Your task to perform on an android device: Go to privacy settings Image 0: 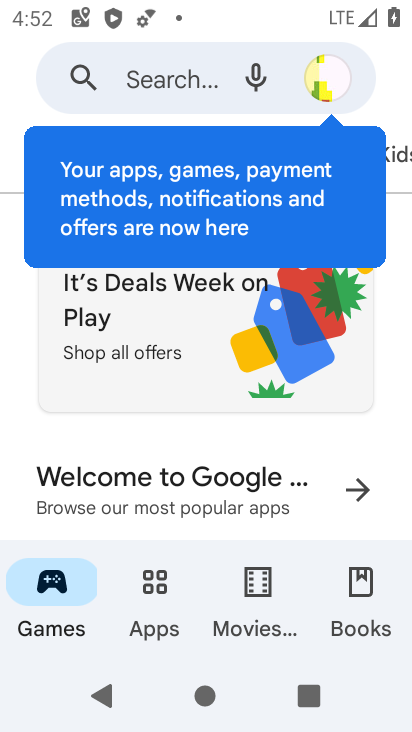
Step 0: press home button
Your task to perform on an android device: Go to privacy settings Image 1: 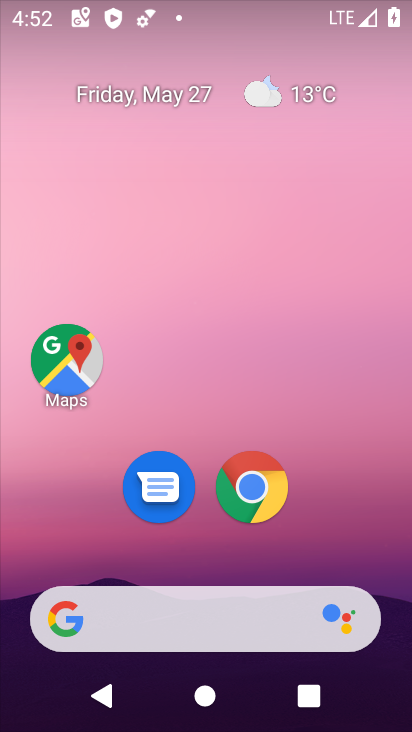
Step 1: drag from (332, 484) to (313, 170)
Your task to perform on an android device: Go to privacy settings Image 2: 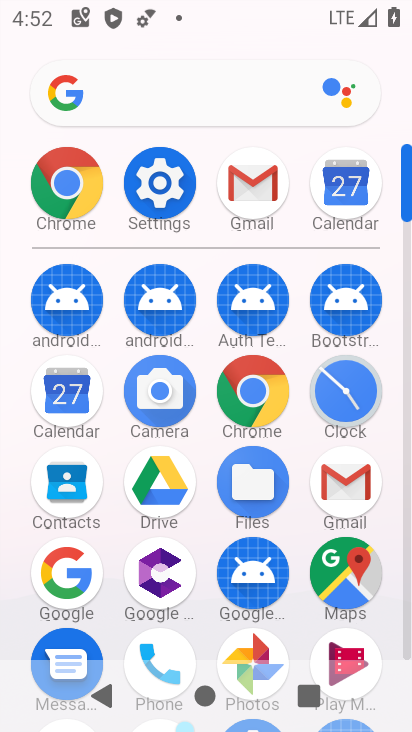
Step 2: click (149, 175)
Your task to perform on an android device: Go to privacy settings Image 3: 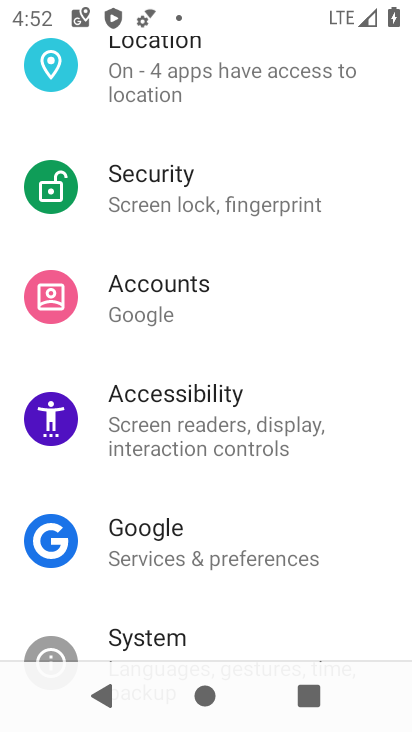
Step 3: drag from (278, 561) to (303, 152)
Your task to perform on an android device: Go to privacy settings Image 4: 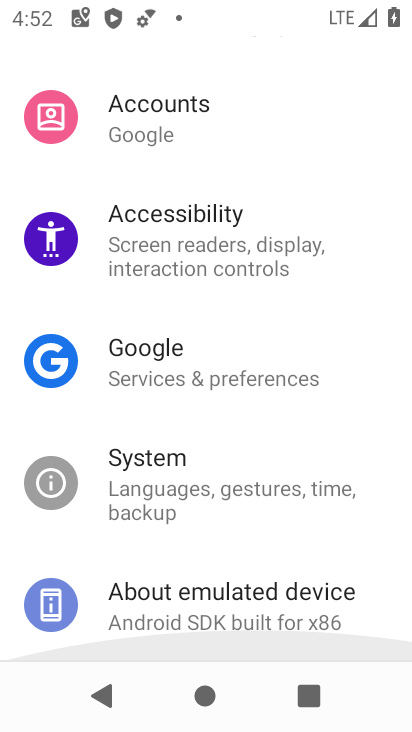
Step 4: click (314, 130)
Your task to perform on an android device: Go to privacy settings Image 5: 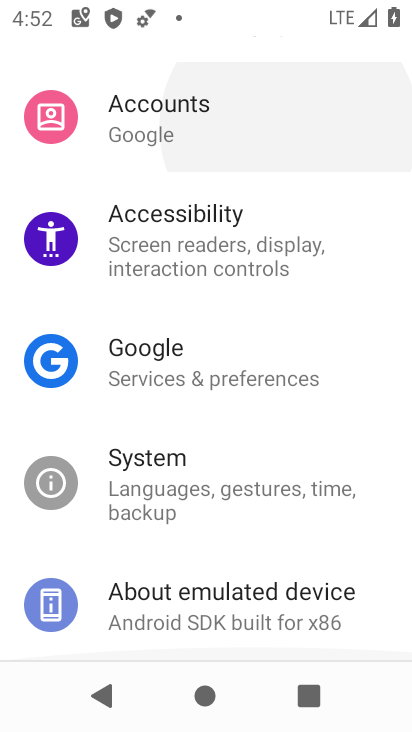
Step 5: click (322, 115)
Your task to perform on an android device: Go to privacy settings Image 6: 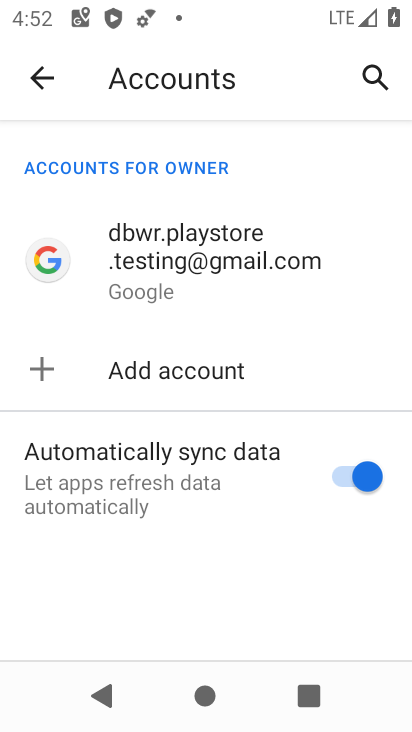
Step 6: click (51, 66)
Your task to perform on an android device: Go to privacy settings Image 7: 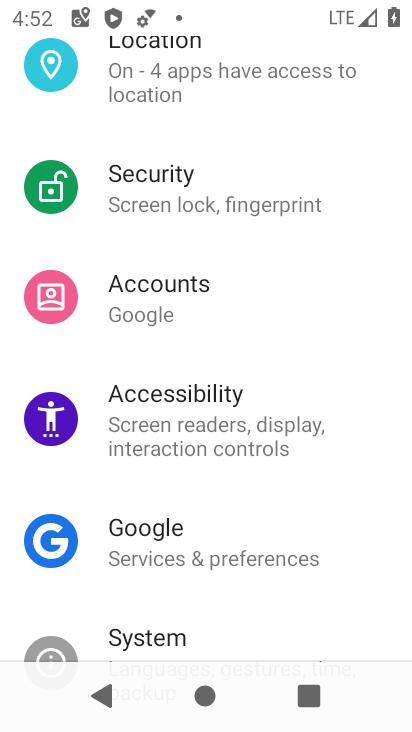
Step 7: drag from (194, 468) to (263, 80)
Your task to perform on an android device: Go to privacy settings Image 8: 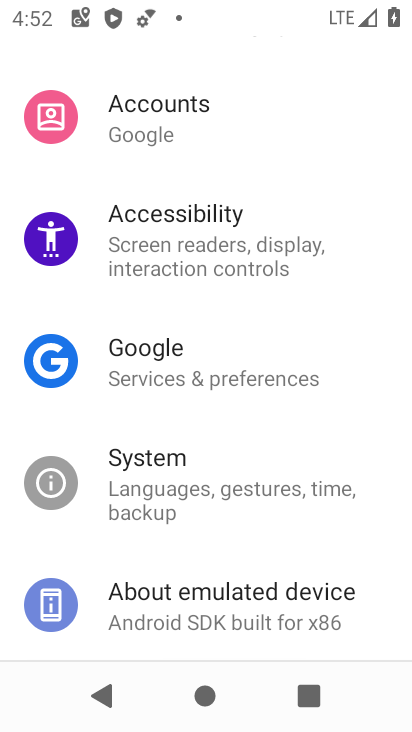
Step 8: drag from (176, 210) to (214, 520)
Your task to perform on an android device: Go to privacy settings Image 9: 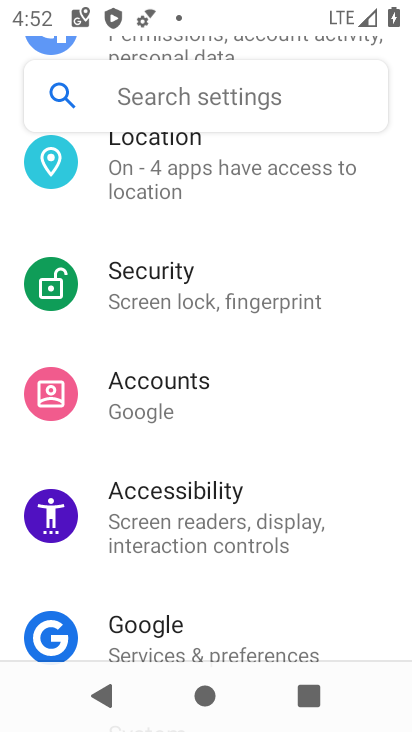
Step 9: drag from (229, 220) to (251, 538)
Your task to perform on an android device: Go to privacy settings Image 10: 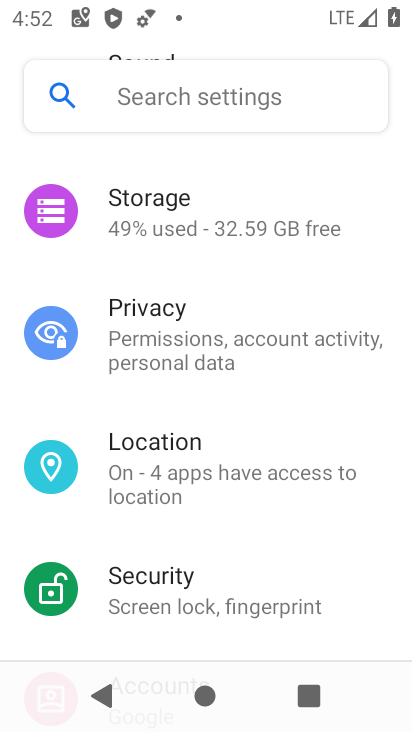
Step 10: click (209, 350)
Your task to perform on an android device: Go to privacy settings Image 11: 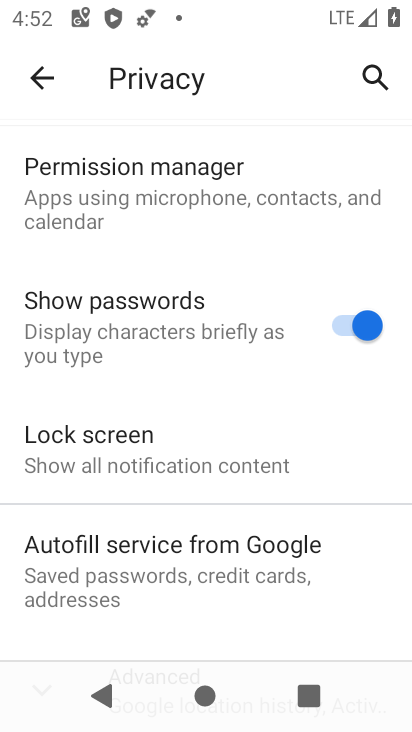
Step 11: task complete